Your task to perform on an android device: Open wifi settings Image 0: 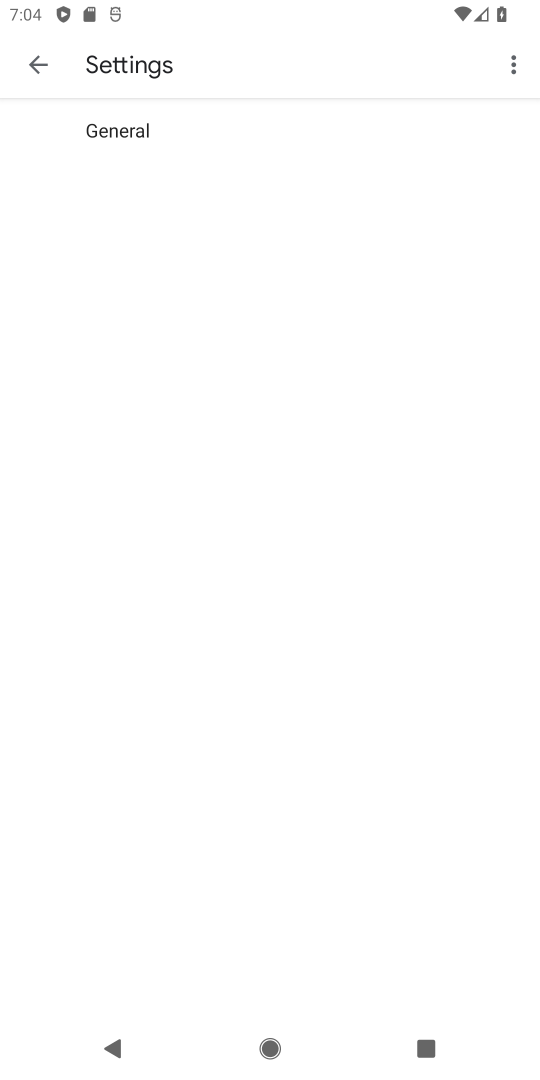
Step 0: press home button
Your task to perform on an android device: Open wifi settings Image 1: 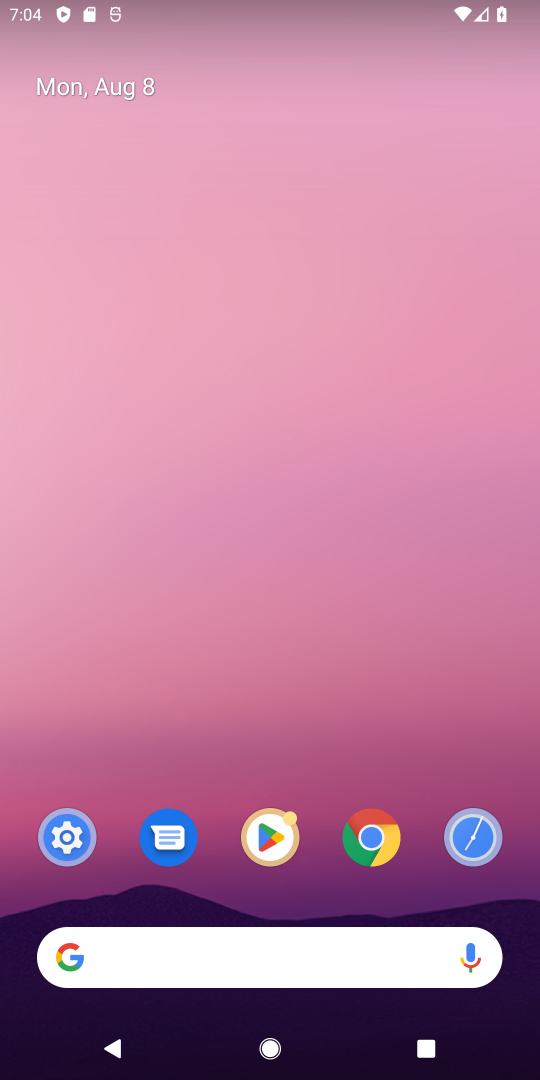
Step 1: click (53, 832)
Your task to perform on an android device: Open wifi settings Image 2: 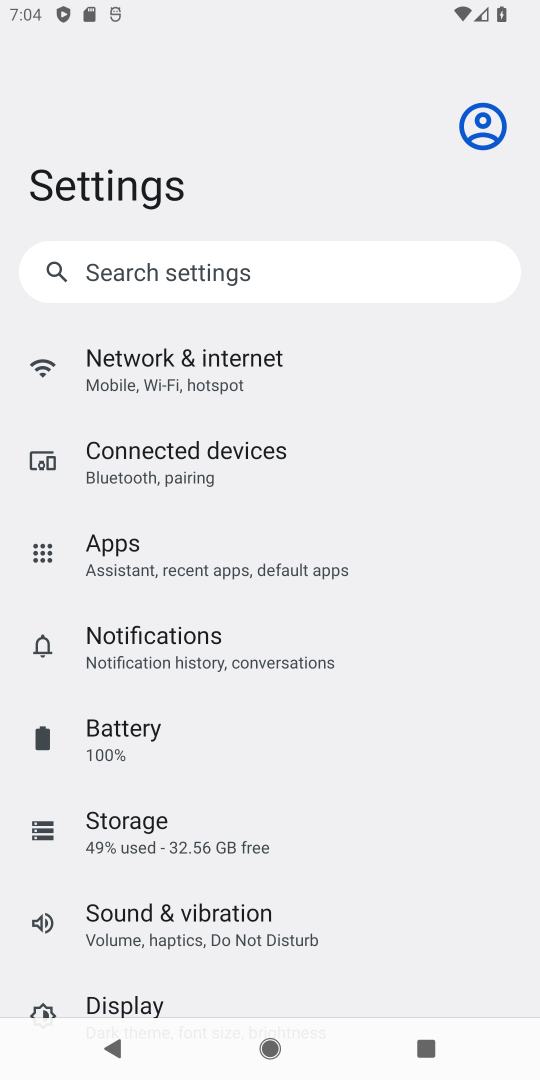
Step 2: click (205, 366)
Your task to perform on an android device: Open wifi settings Image 3: 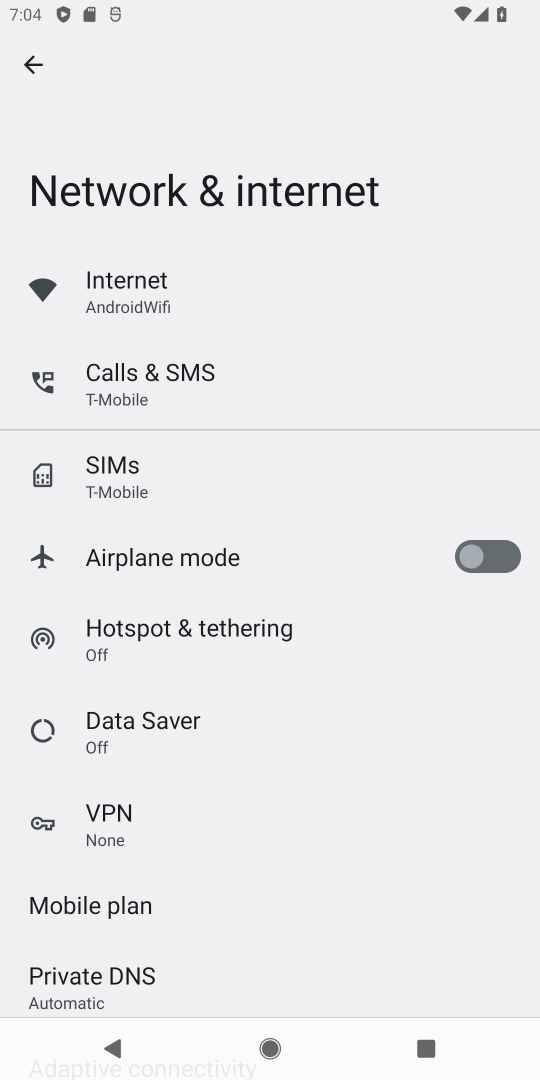
Step 3: click (140, 300)
Your task to perform on an android device: Open wifi settings Image 4: 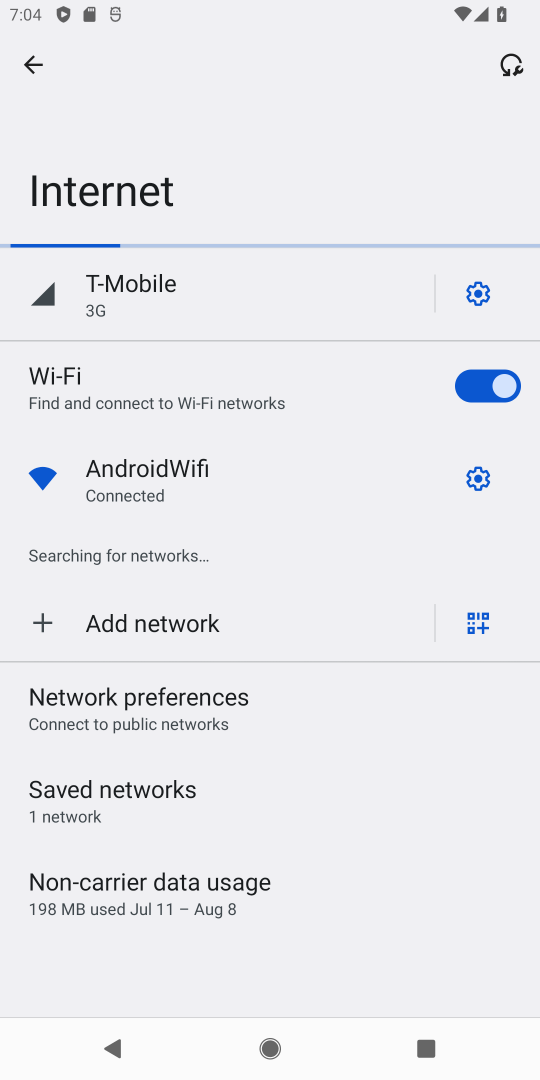
Step 4: click (178, 475)
Your task to perform on an android device: Open wifi settings Image 5: 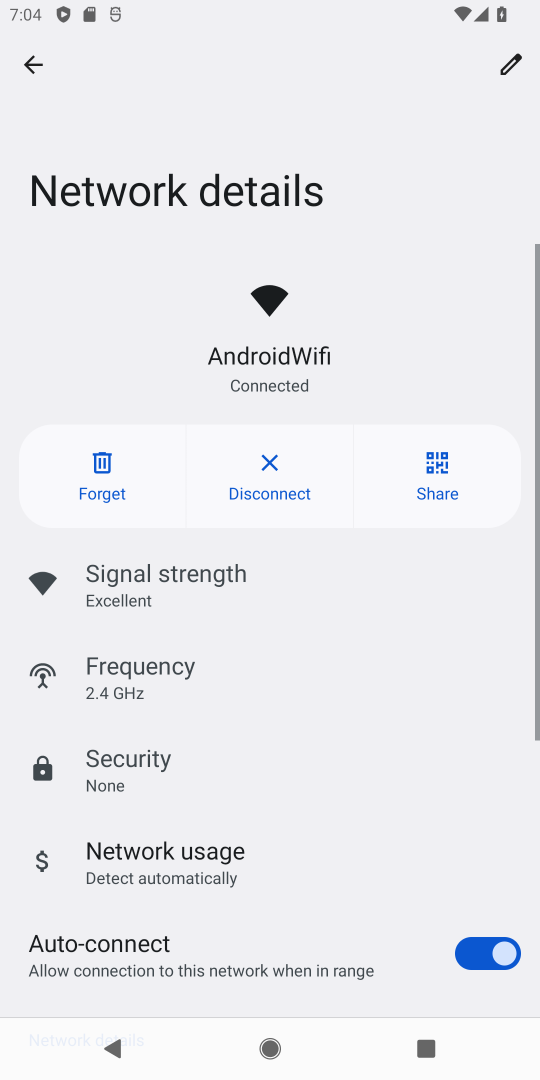
Step 5: task complete